Your task to perform on an android device: change keyboard looks Image 0: 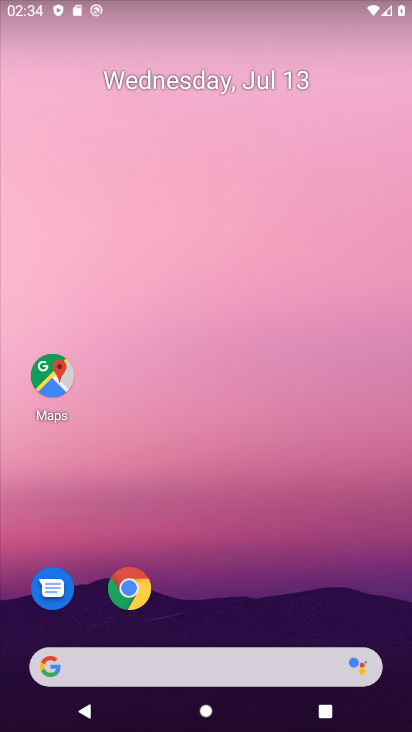
Step 0: drag from (203, 605) to (236, 171)
Your task to perform on an android device: change keyboard looks Image 1: 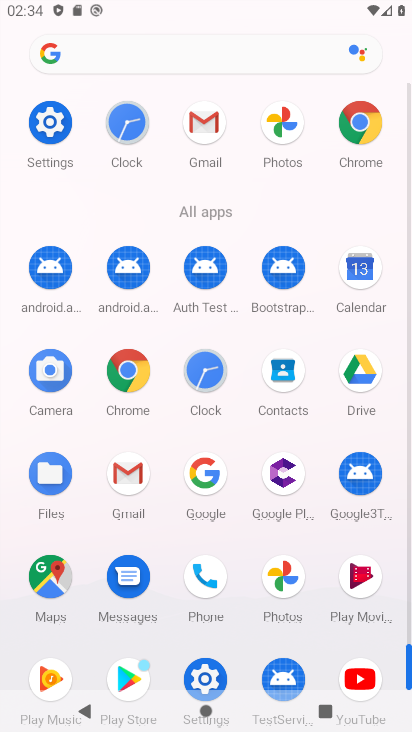
Step 1: click (41, 118)
Your task to perform on an android device: change keyboard looks Image 2: 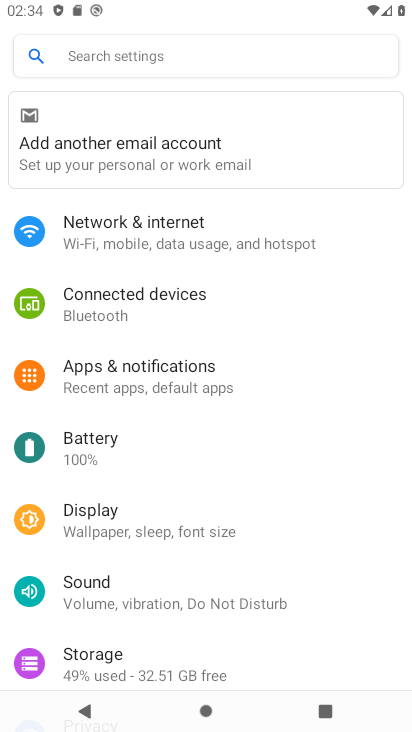
Step 2: drag from (109, 620) to (147, 249)
Your task to perform on an android device: change keyboard looks Image 3: 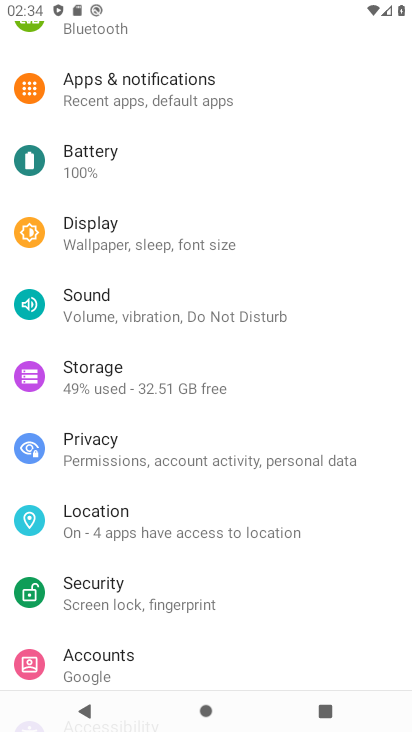
Step 3: drag from (106, 632) to (159, 295)
Your task to perform on an android device: change keyboard looks Image 4: 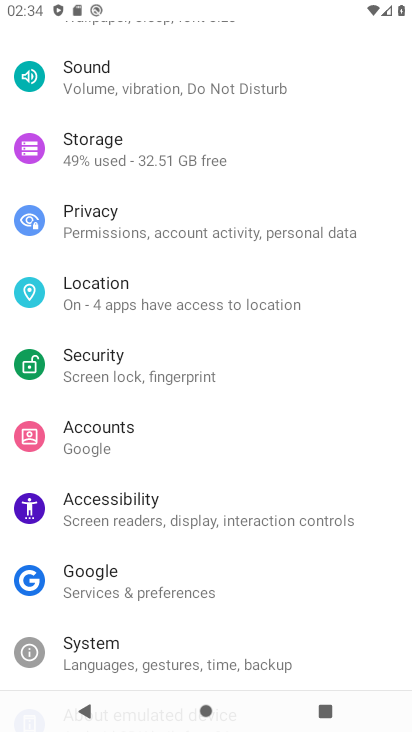
Step 4: click (152, 644)
Your task to perform on an android device: change keyboard looks Image 5: 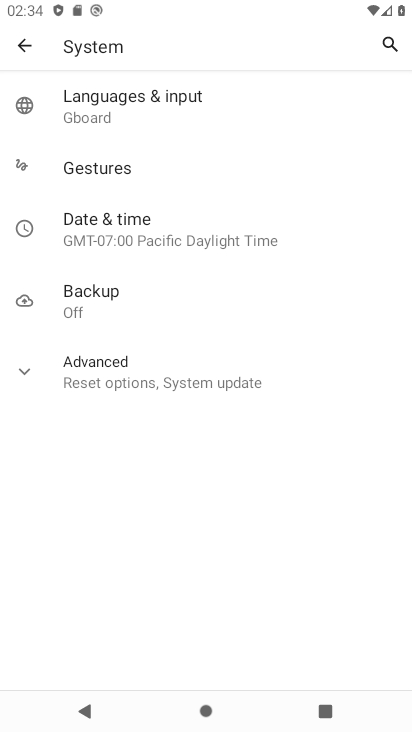
Step 5: click (97, 103)
Your task to perform on an android device: change keyboard looks Image 6: 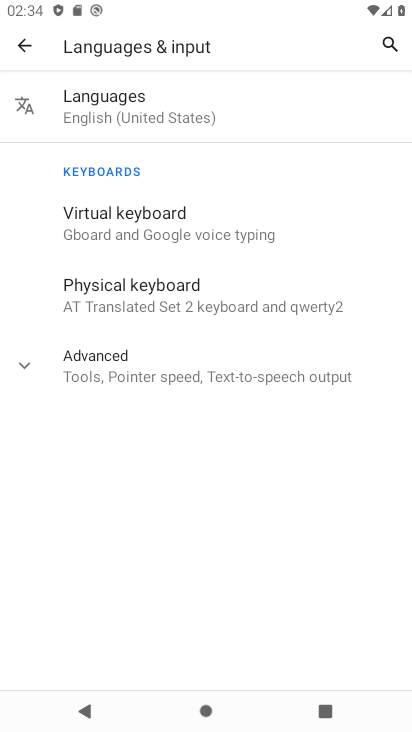
Step 6: click (96, 220)
Your task to perform on an android device: change keyboard looks Image 7: 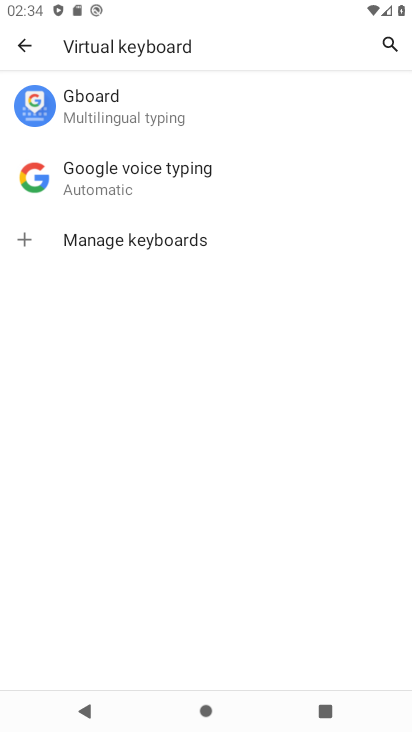
Step 7: click (96, 112)
Your task to perform on an android device: change keyboard looks Image 8: 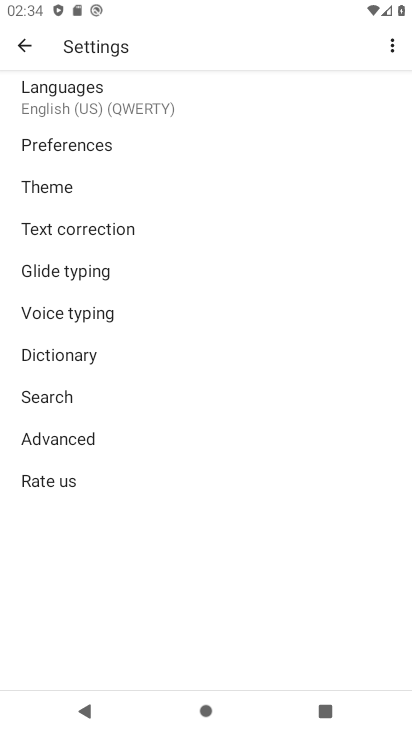
Step 8: click (26, 186)
Your task to perform on an android device: change keyboard looks Image 9: 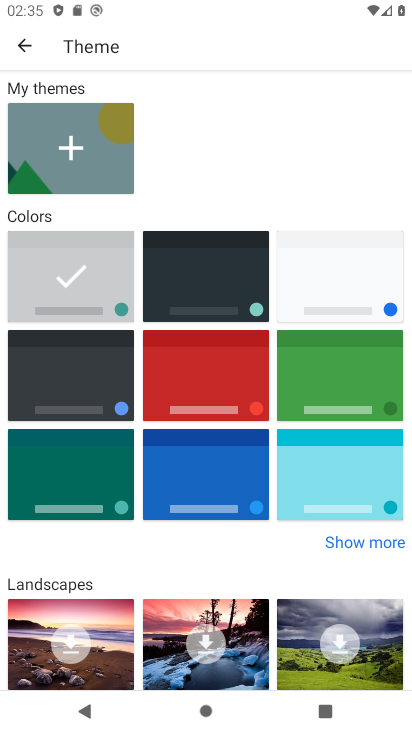
Step 9: click (192, 292)
Your task to perform on an android device: change keyboard looks Image 10: 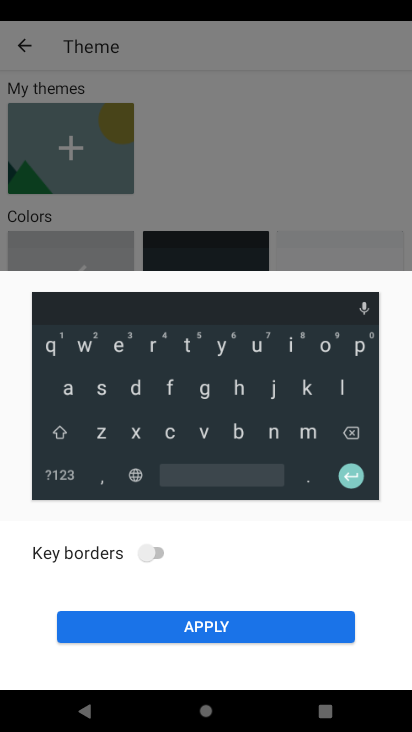
Step 10: click (226, 630)
Your task to perform on an android device: change keyboard looks Image 11: 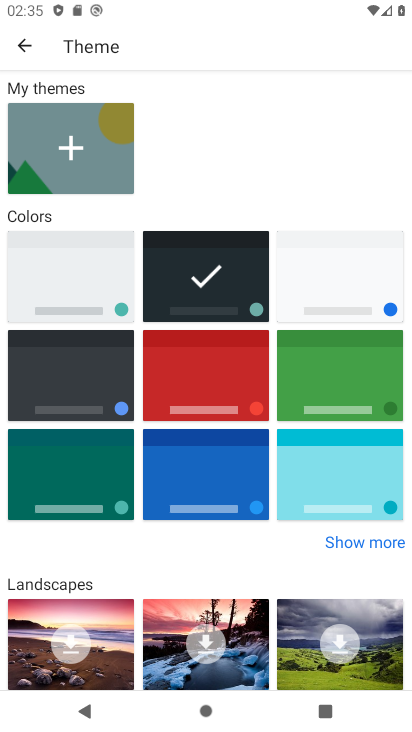
Step 11: task complete